Your task to perform on an android device: What is the speed of a bicycle? Image 0: 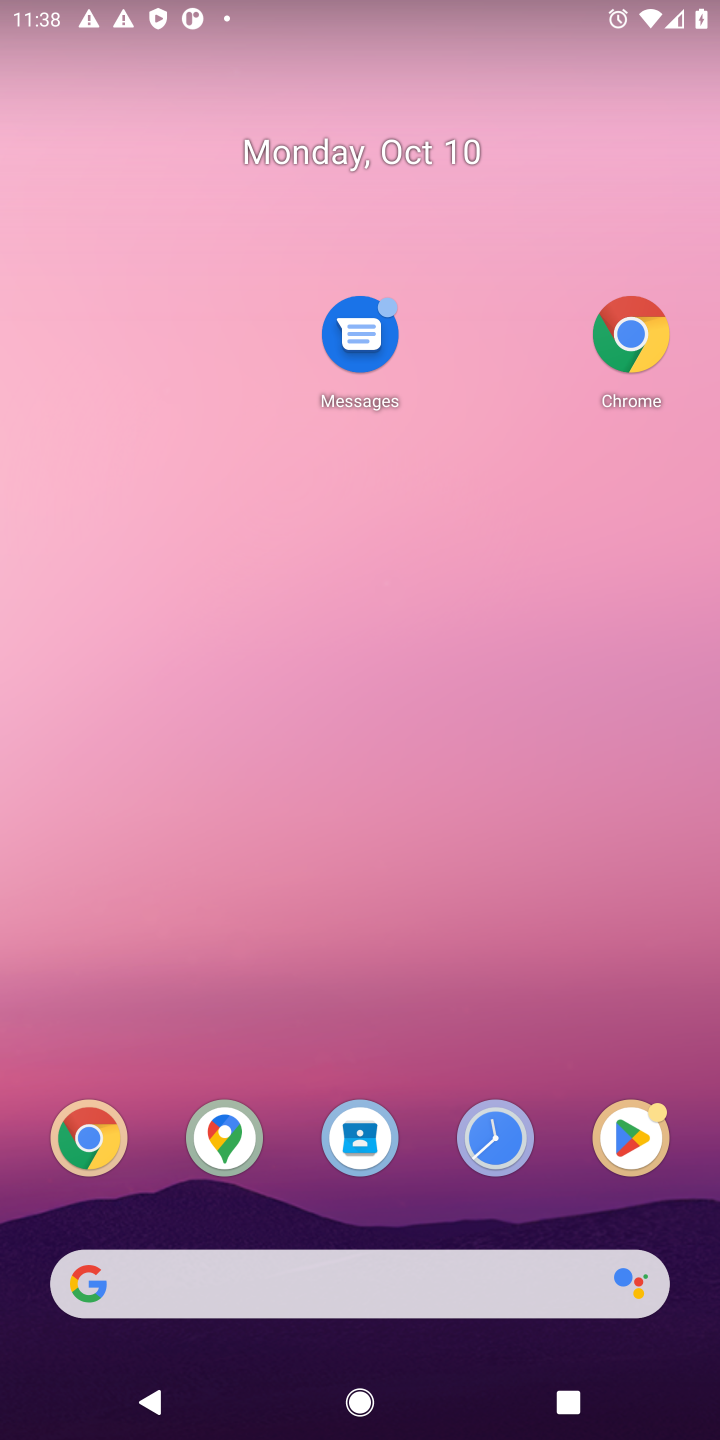
Step 0: click (106, 1148)
Your task to perform on an android device: What is the speed of a bicycle? Image 1: 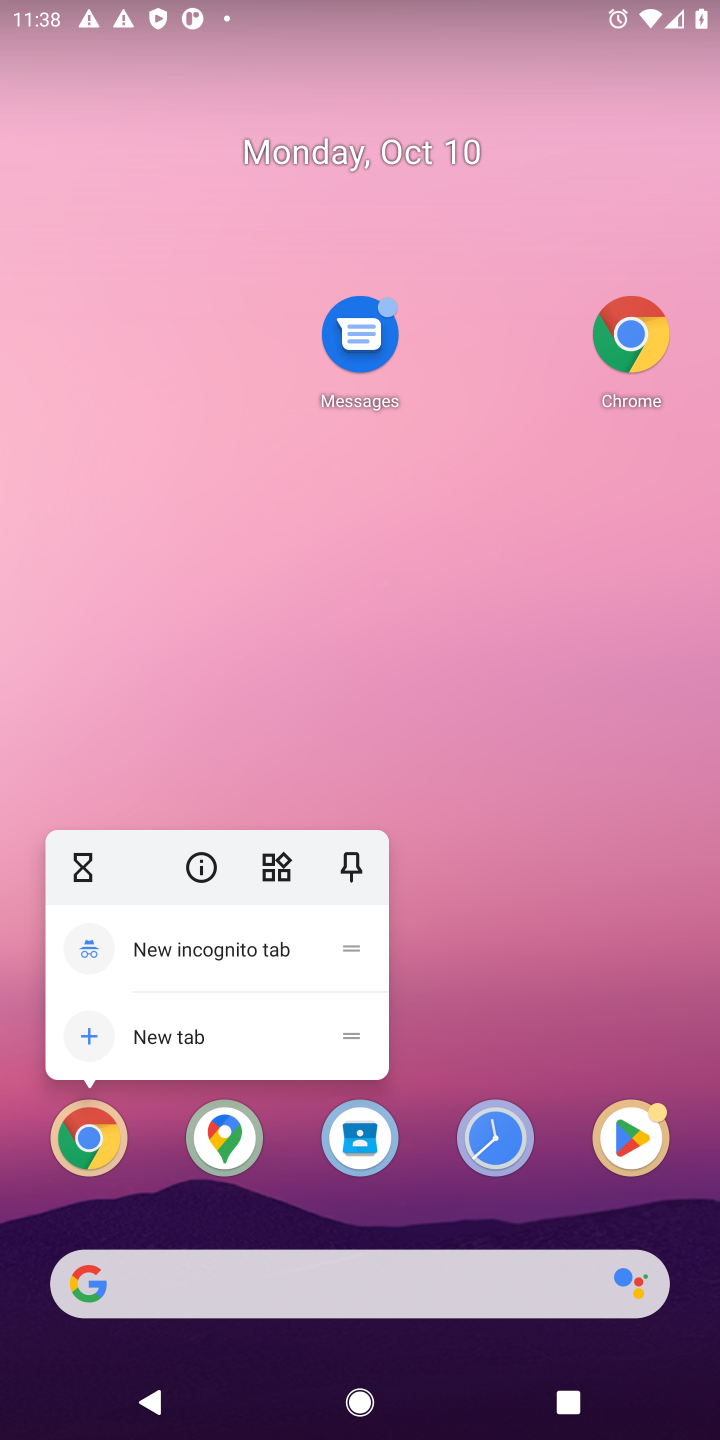
Step 1: click (641, 364)
Your task to perform on an android device: What is the speed of a bicycle? Image 2: 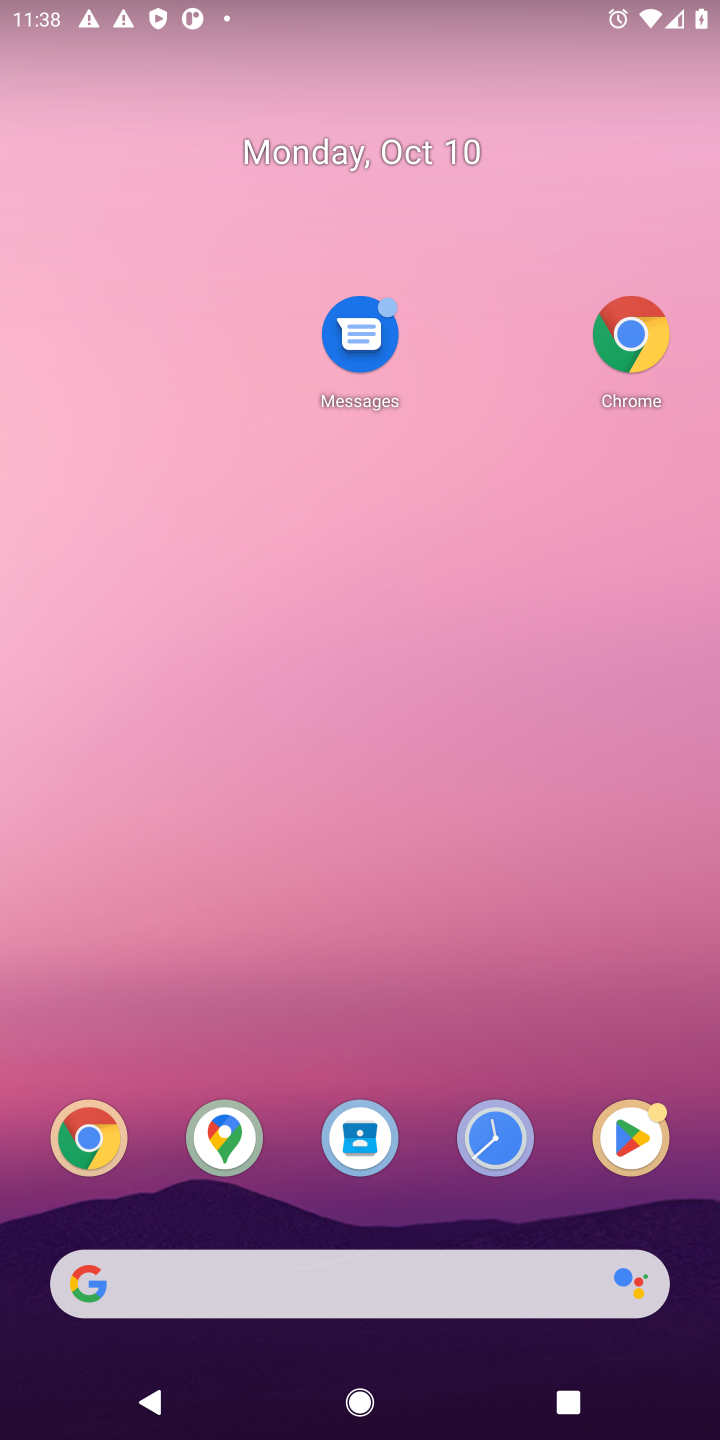
Step 2: click (637, 341)
Your task to perform on an android device: What is the speed of a bicycle? Image 3: 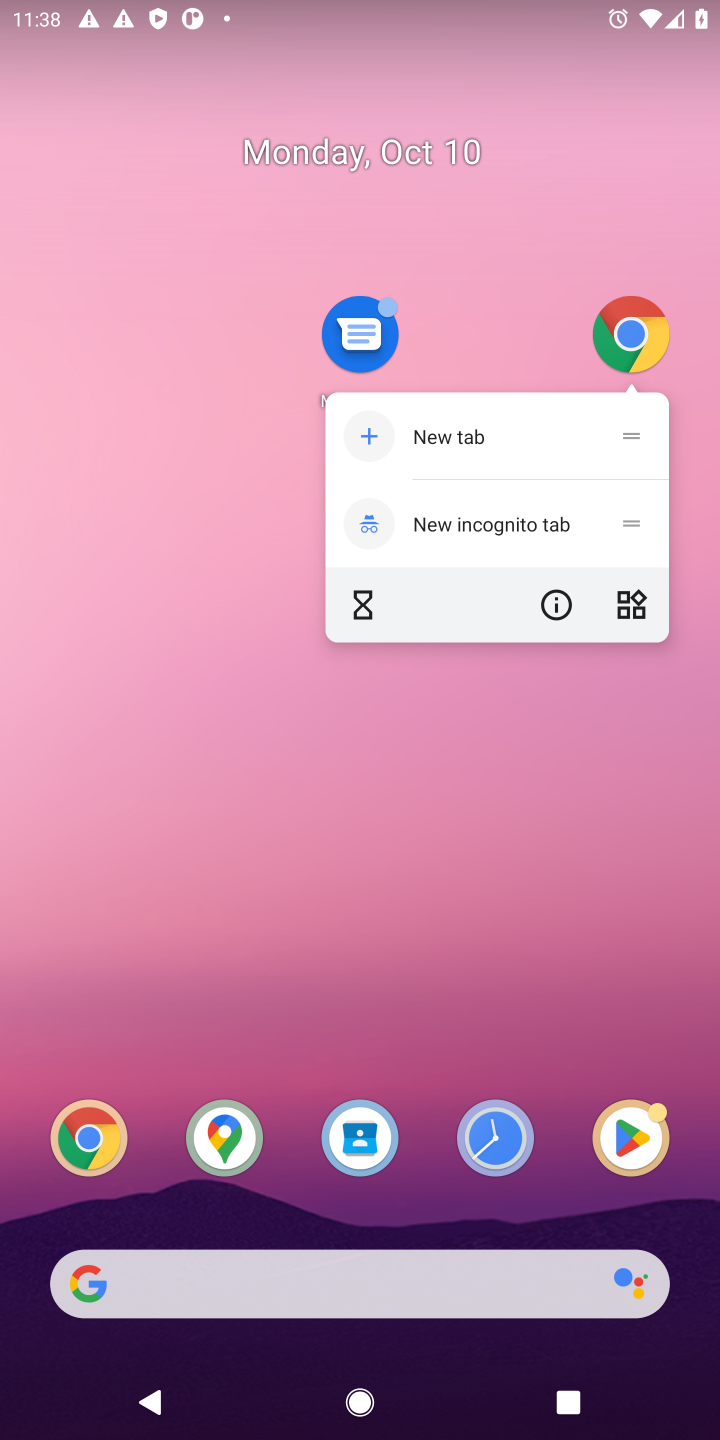
Step 3: click (99, 1142)
Your task to perform on an android device: What is the speed of a bicycle? Image 4: 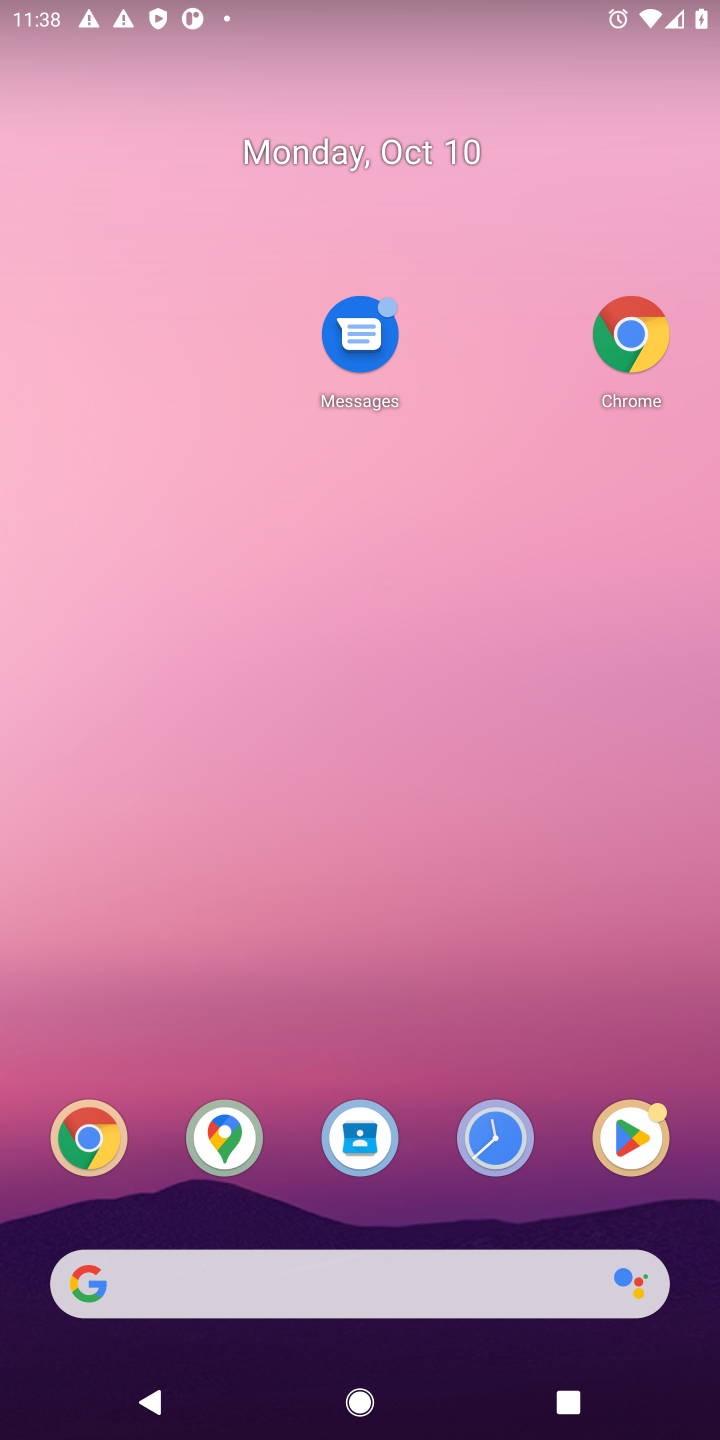
Step 4: click (86, 1139)
Your task to perform on an android device: What is the speed of a bicycle? Image 5: 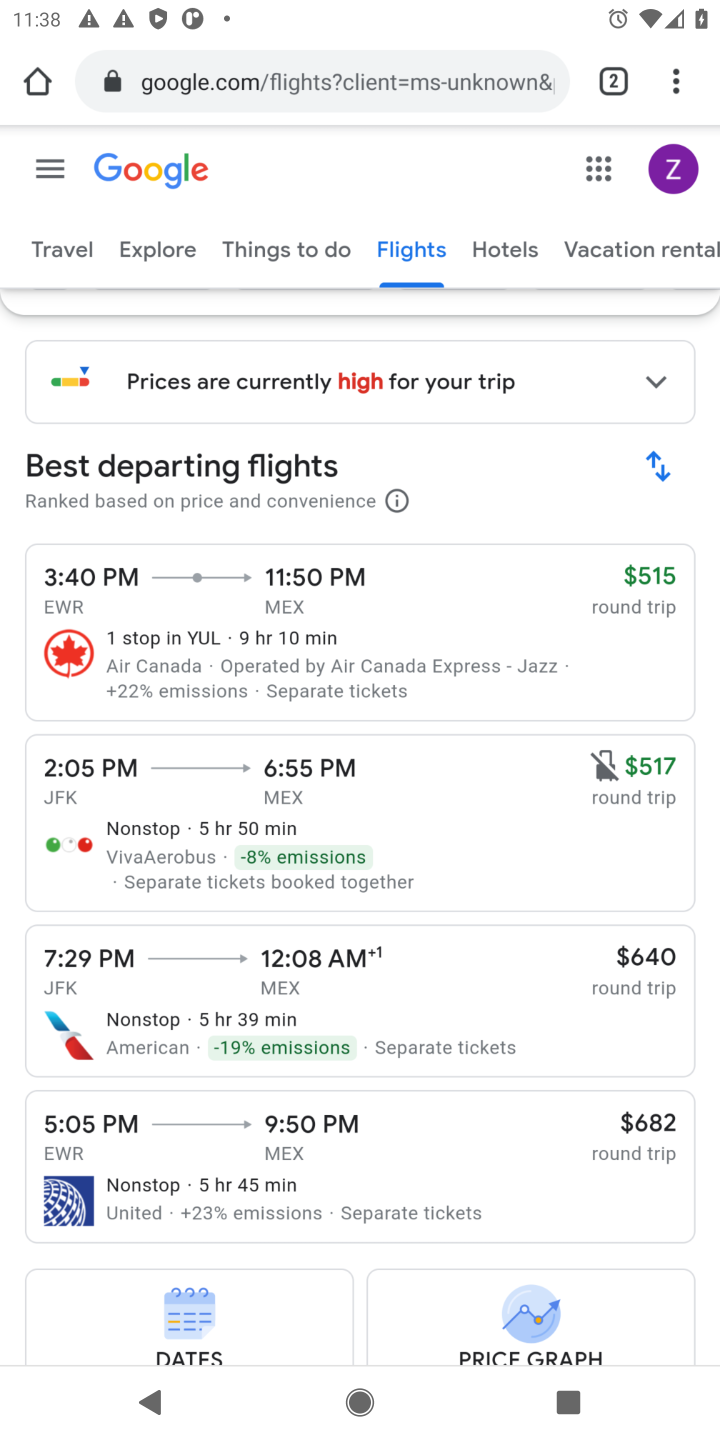
Step 5: click (87, 1152)
Your task to perform on an android device: What is the speed of a bicycle? Image 6: 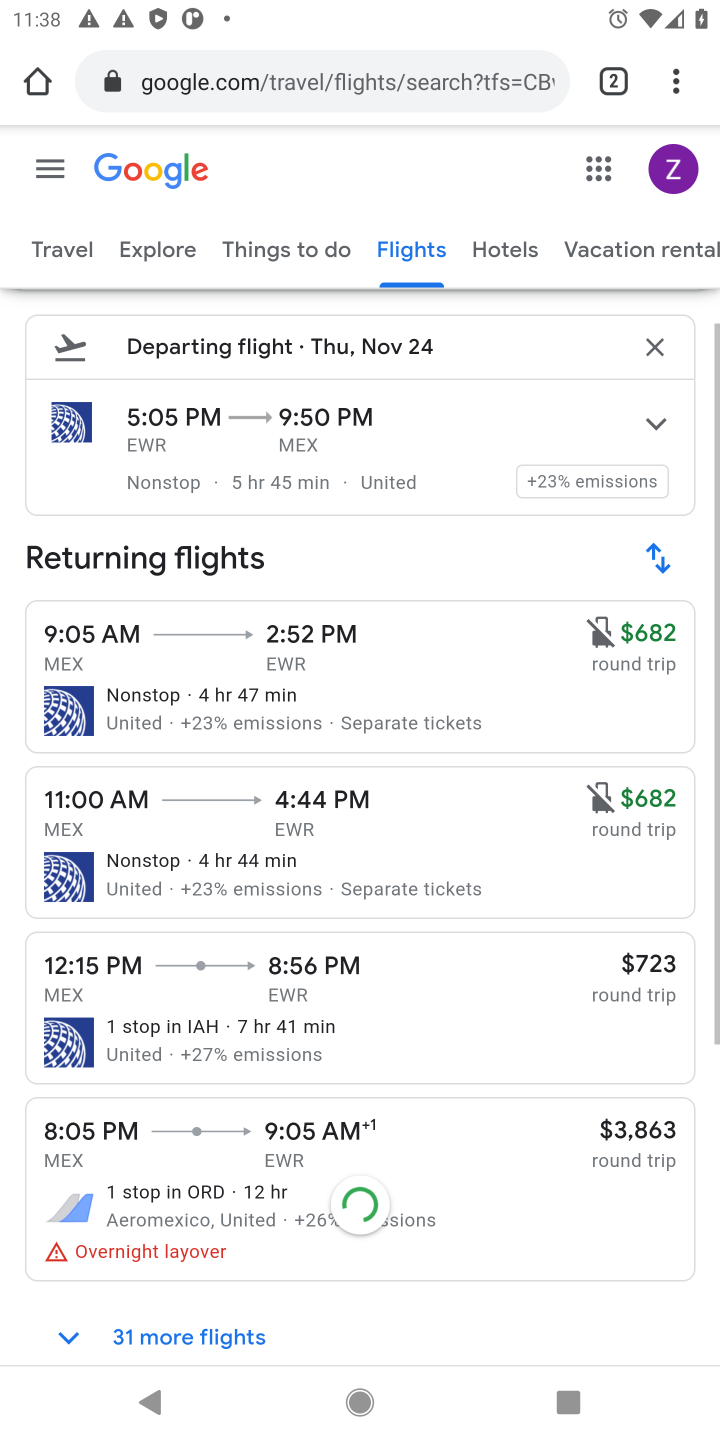
Step 6: click (396, 77)
Your task to perform on an android device: What is the speed of a bicycle? Image 7: 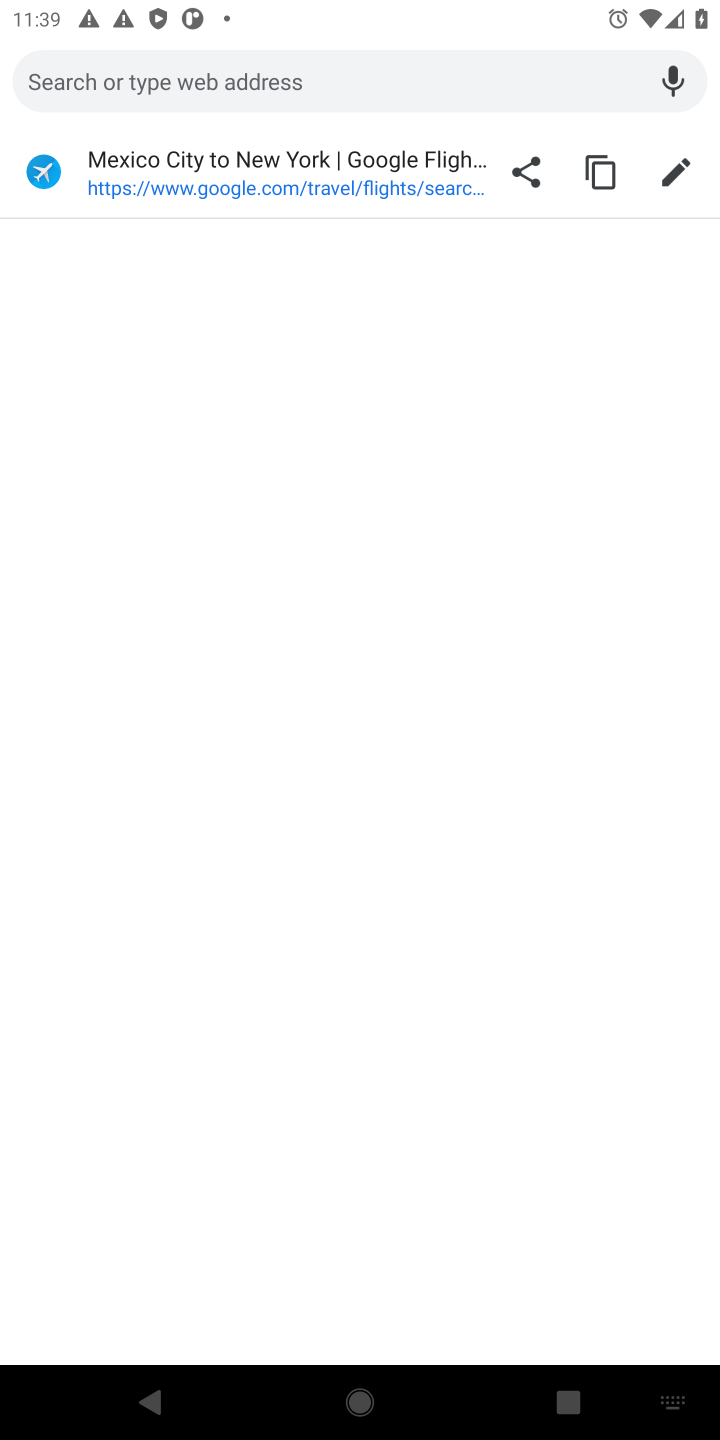
Step 7: type "speed of a bicycle"
Your task to perform on an android device: What is the speed of a bicycle? Image 8: 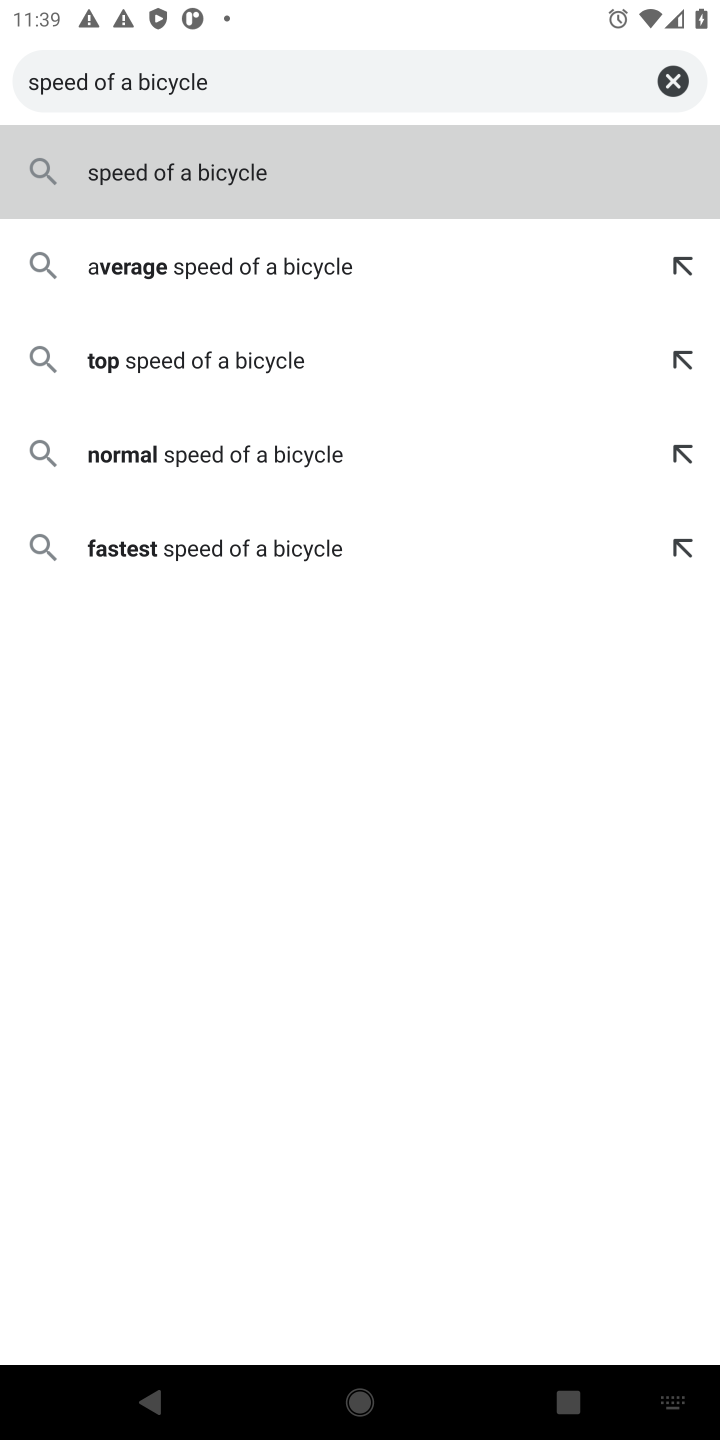
Step 8: press enter
Your task to perform on an android device: What is the speed of a bicycle? Image 9: 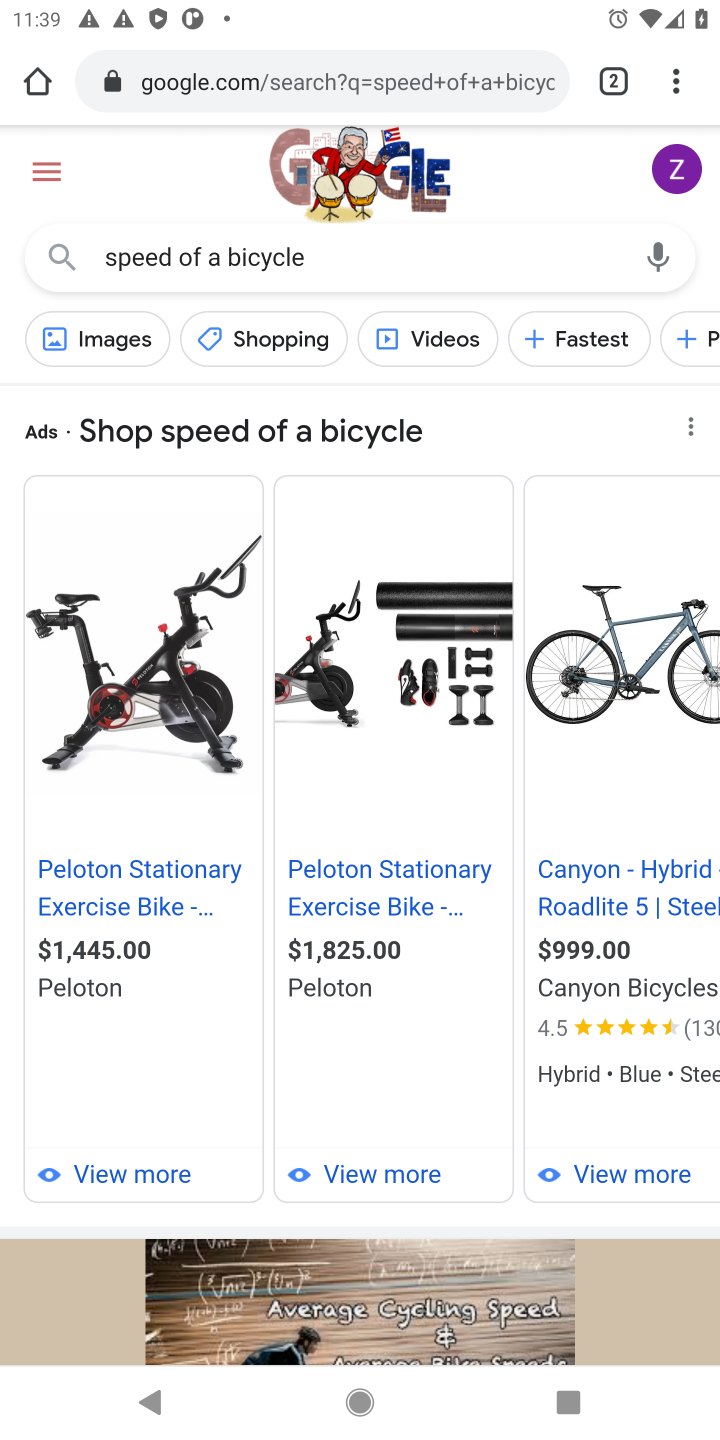
Step 9: task complete